Your task to perform on an android device: open app "ZOOM Cloud Meetings" (install if not already installed) Image 0: 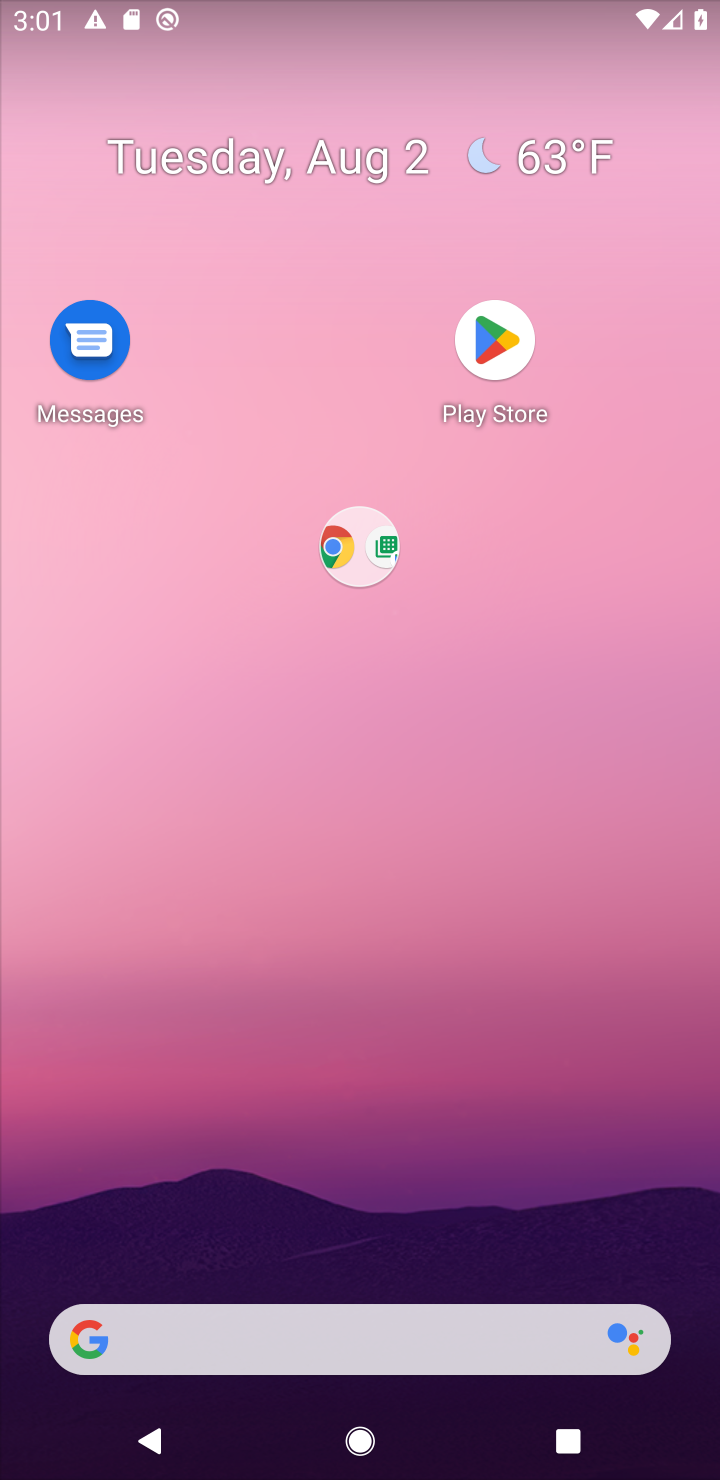
Step 0: press back button
Your task to perform on an android device: open app "ZOOM Cloud Meetings" (install if not already installed) Image 1: 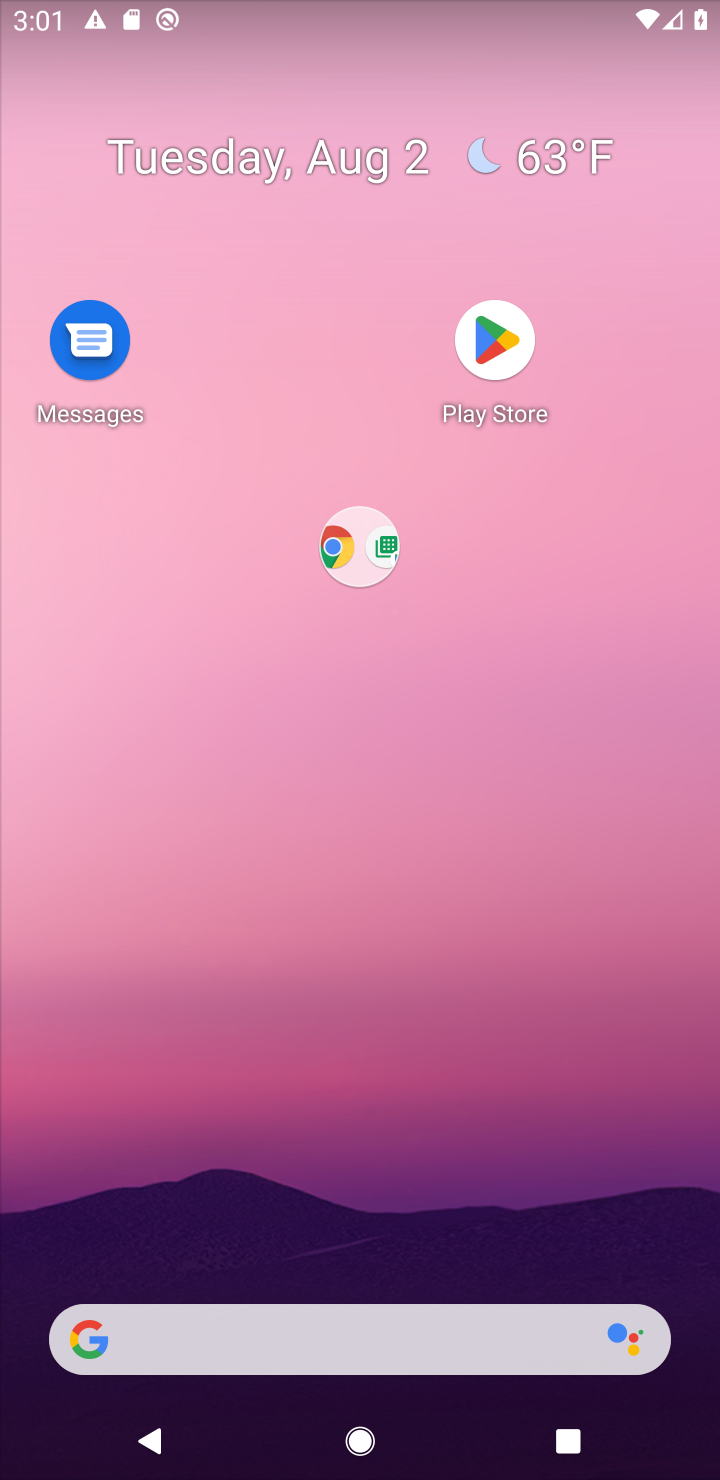
Step 1: click (62, 94)
Your task to perform on an android device: open app "ZOOM Cloud Meetings" (install if not already installed) Image 2: 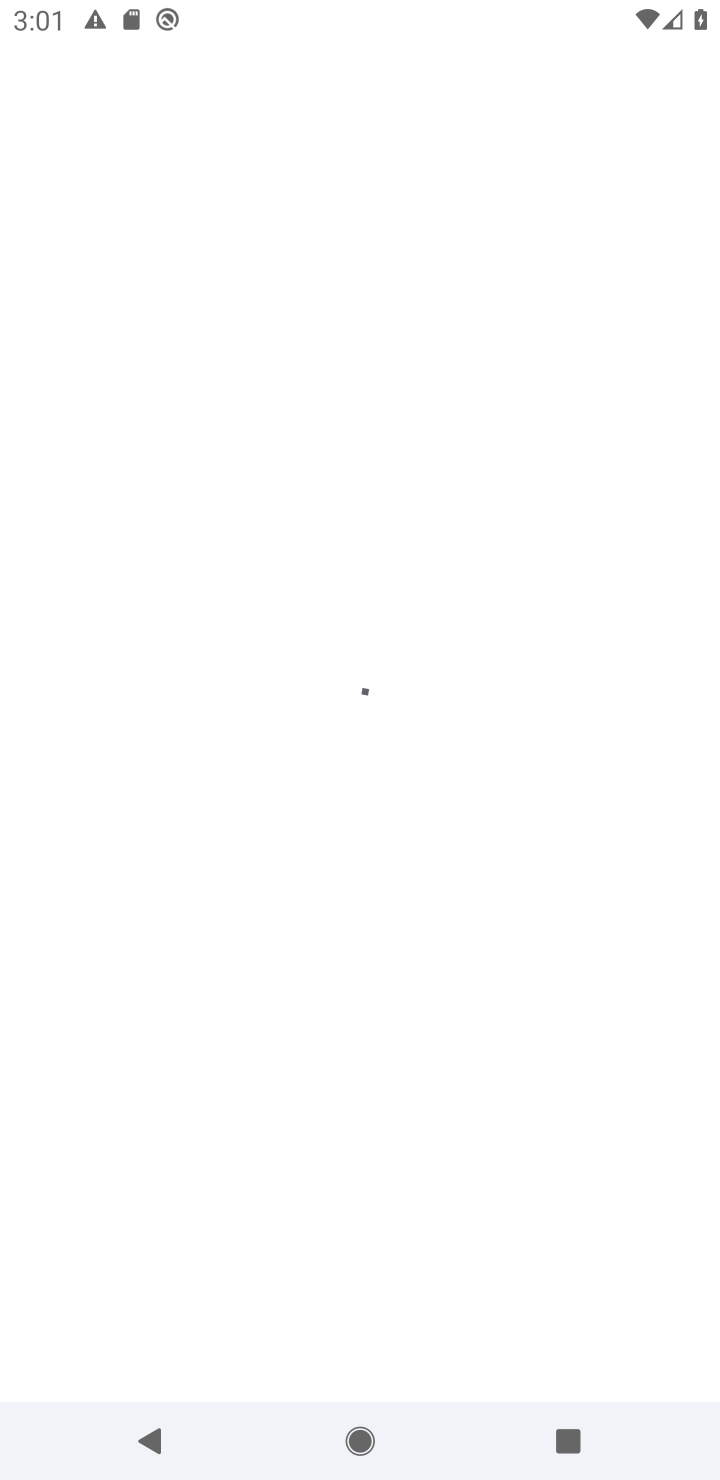
Step 2: click (243, 18)
Your task to perform on an android device: open app "ZOOM Cloud Meetings" (install if not already installed) Image 3: 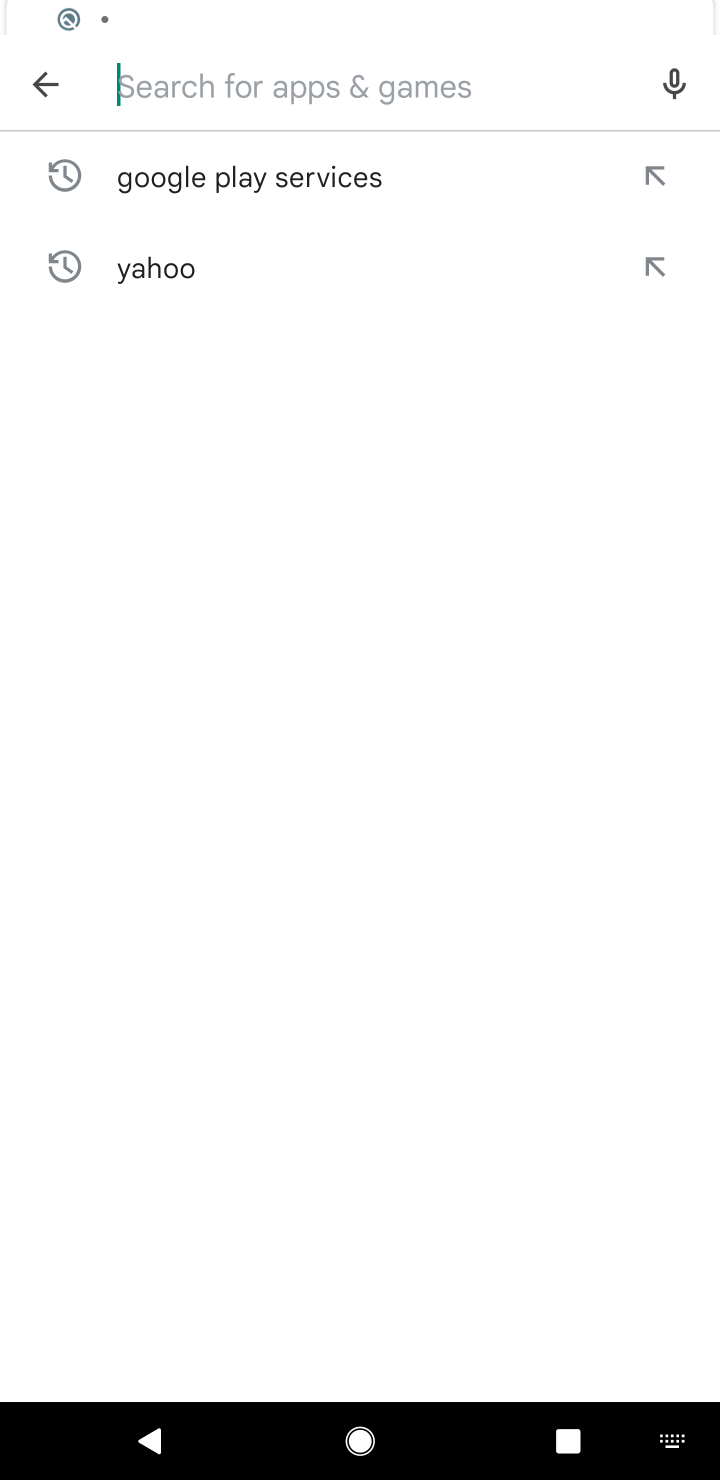
Step 3: click (268, 102)
Your task to perform on an android device: open app "ZOOM Cloud Meetings" (install if not already installed) Image 4: 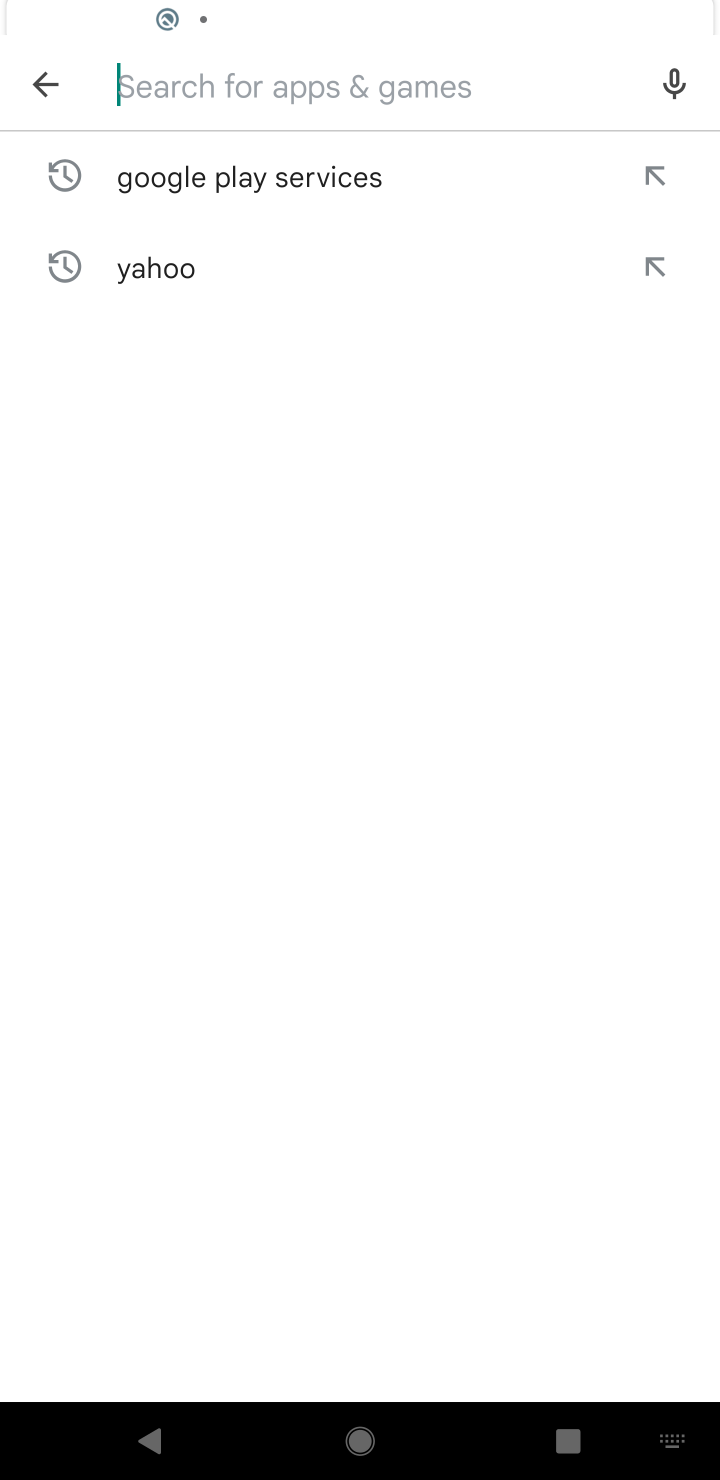
Step 4: click (289, 60)
Your task to perform on an android device: open app "ZOOM Cloud Meetings" (install if not already installed) Image 5: 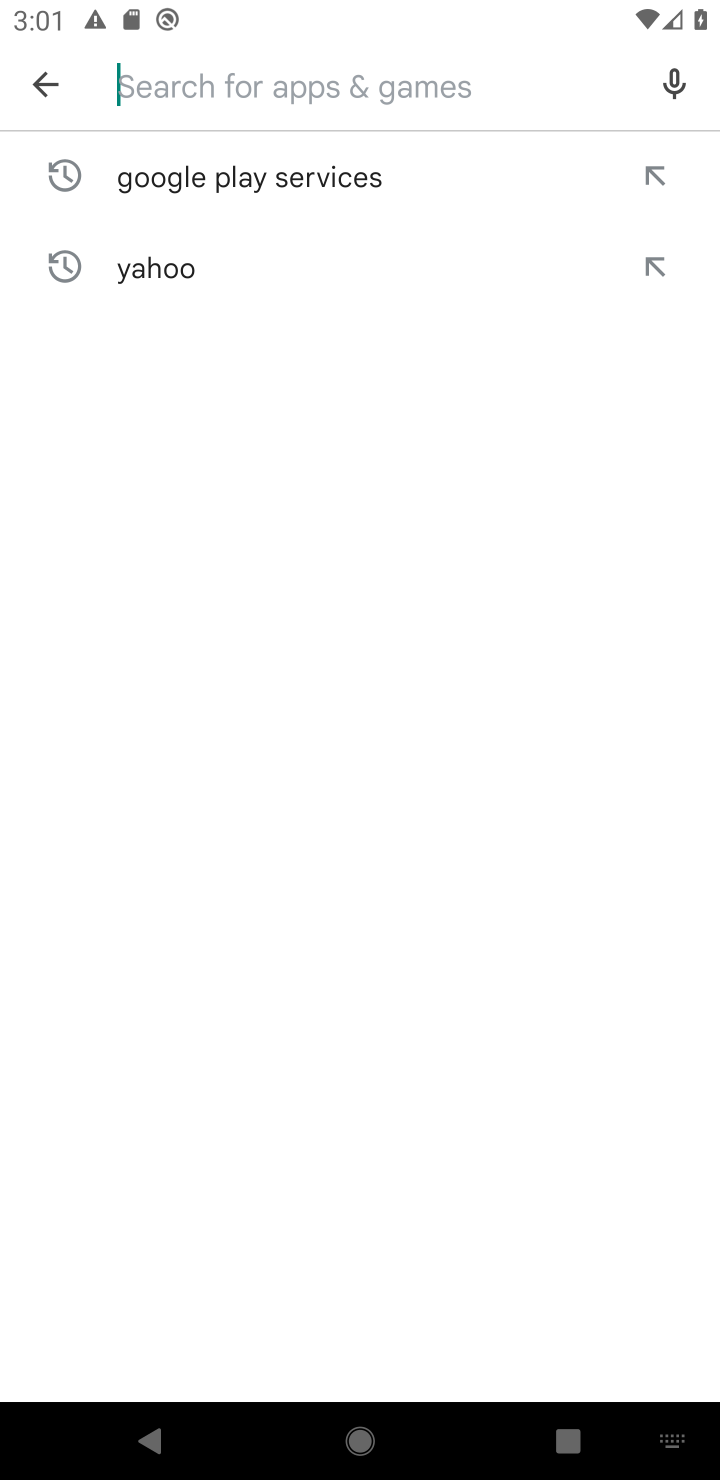
Step 5: type "zoom"
Your task to perform on an android device: open app "ZOOM Cloud Meetings" (install if not already installed) Image 6: 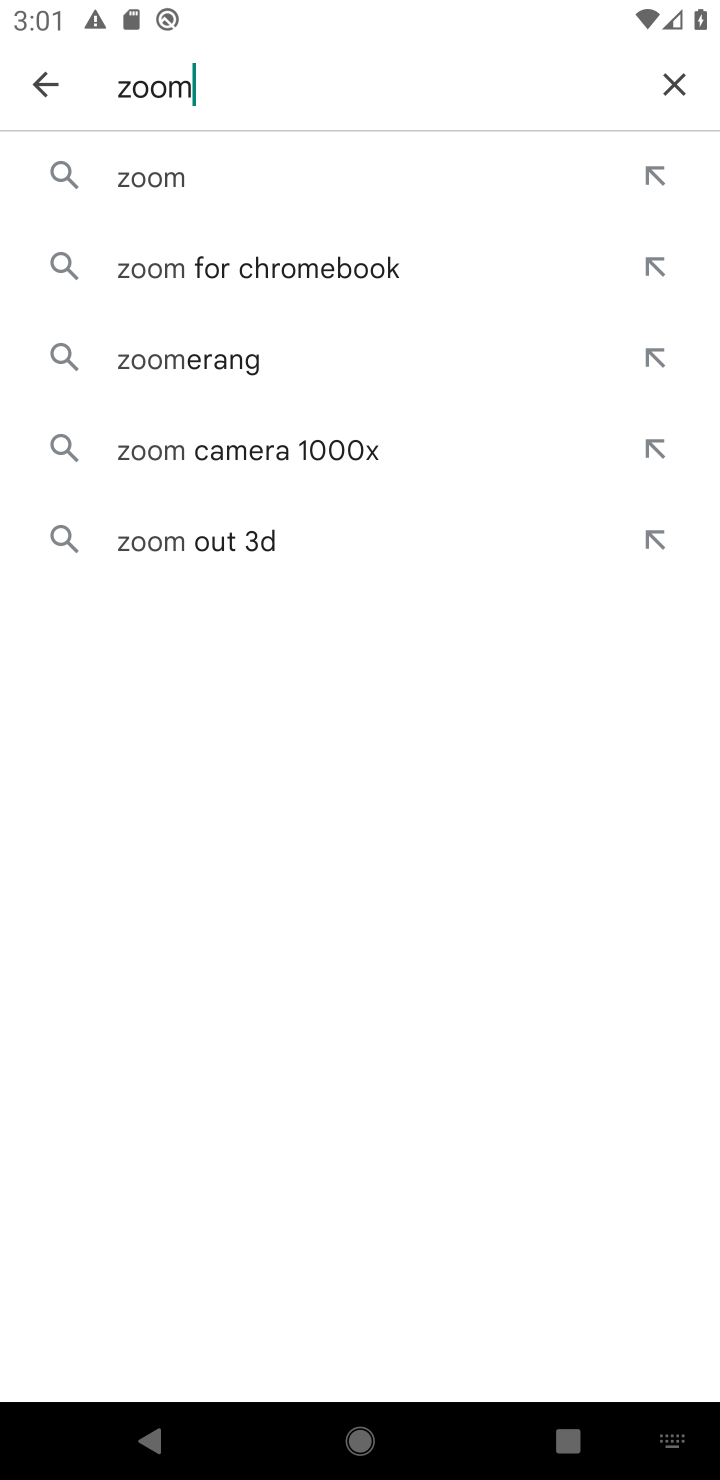
Step 6: click (149, 178)
Your task to perform on an android device: open app "ZOOM Cloud Meetings" (install if not already installed) Image 7: 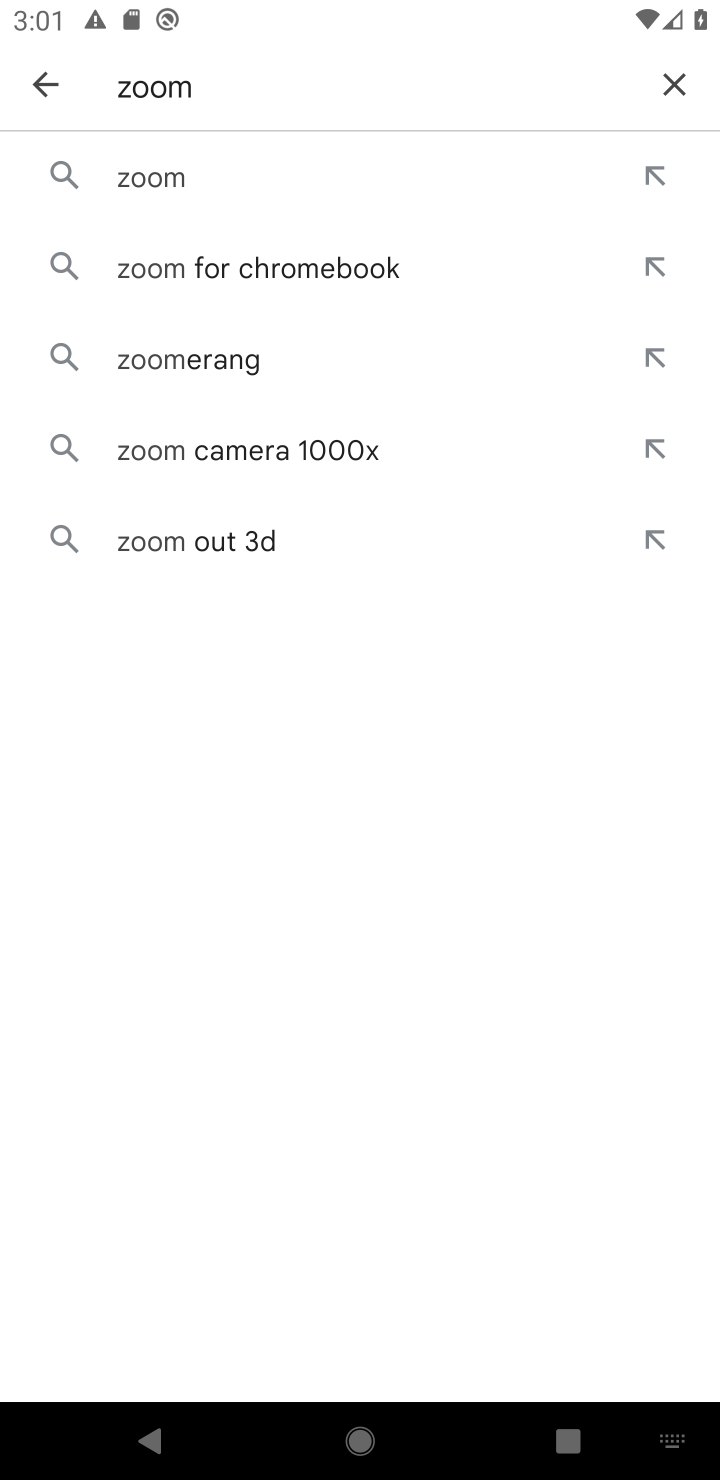
Step 7: click (149, 178)
Your task to perform on an android device: open app "ZOOM Cloud Meetings" (install if not already installed) Image 8: 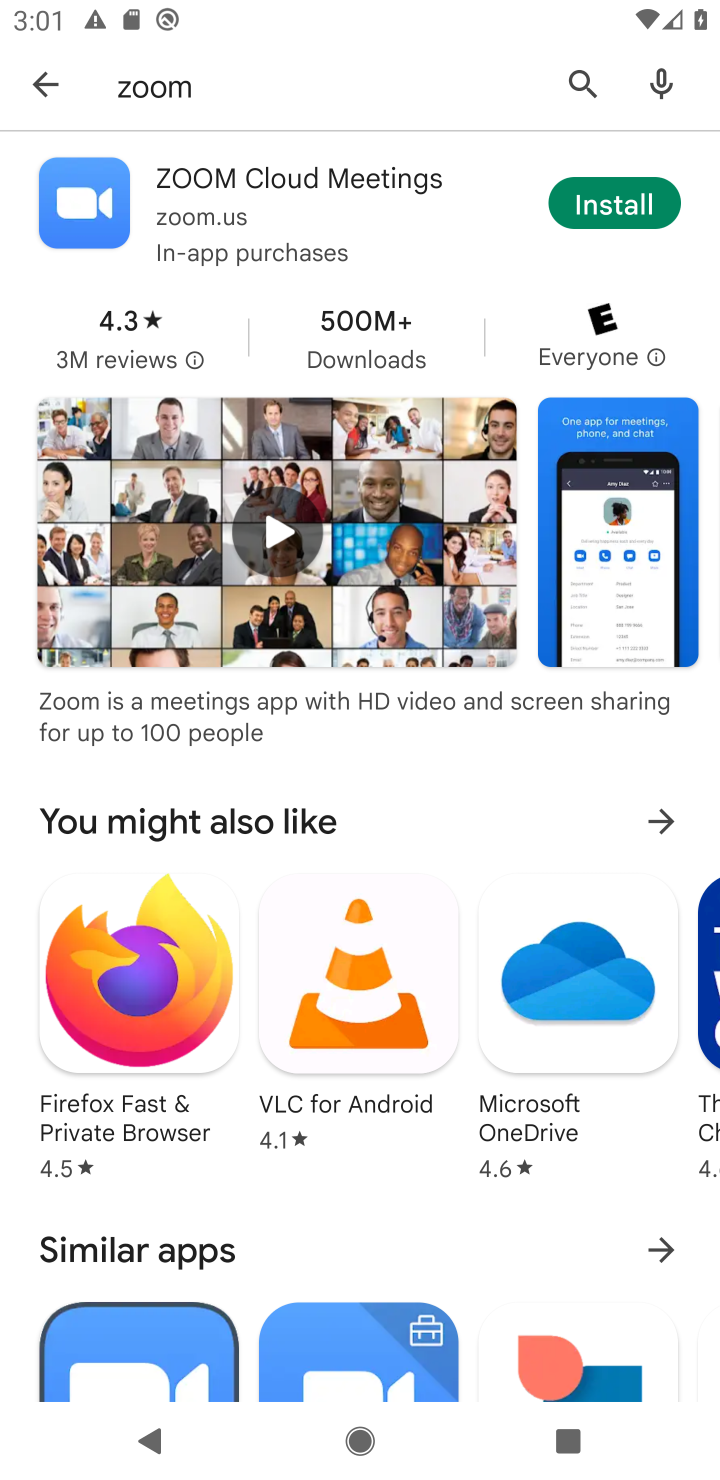
Step 8: click (653, 196)
Your task to perform on an android device: open app "ZOOM Cloud Meetings" (install if not already installed) Image 9: 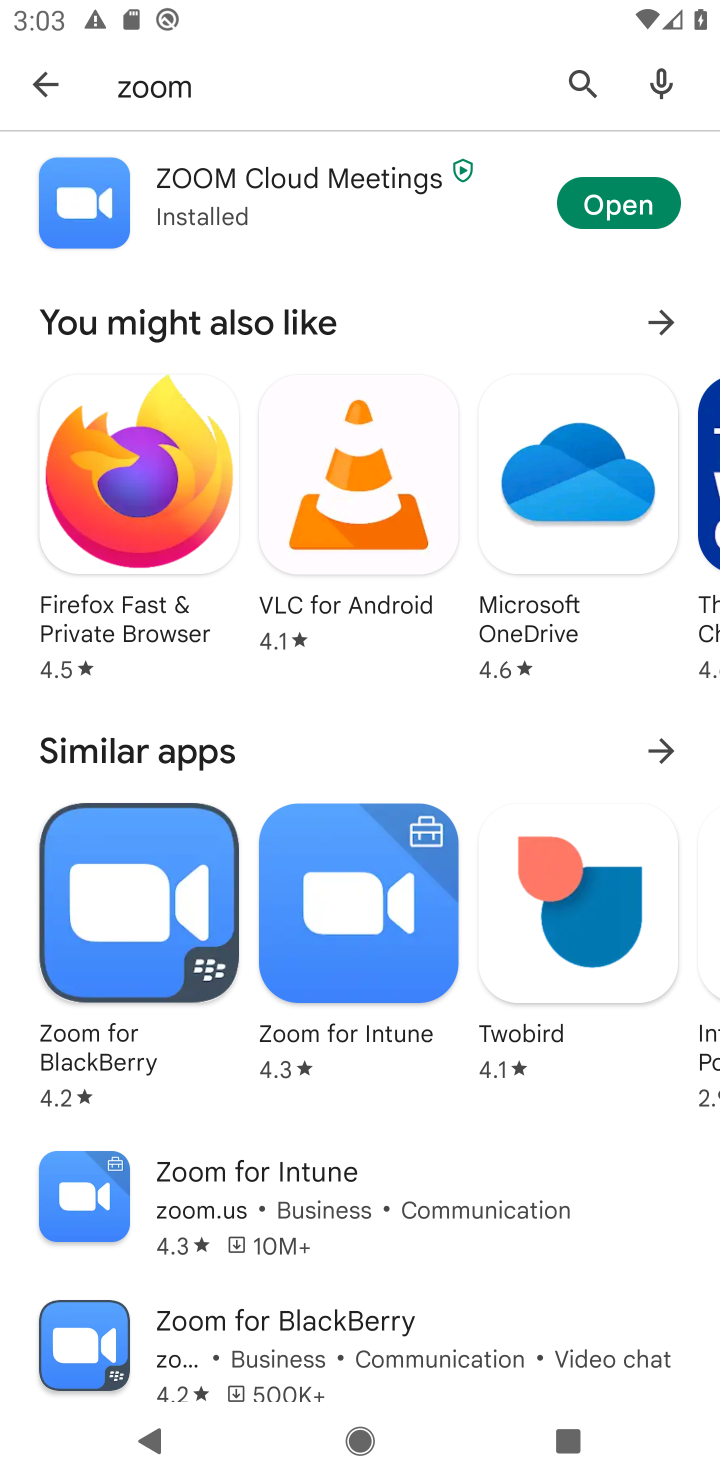
Step 9: click (624, 178)
Your task to perform on an android device: open app "ZOOM Cloud Meetings" (install if not already installed) Image 10: 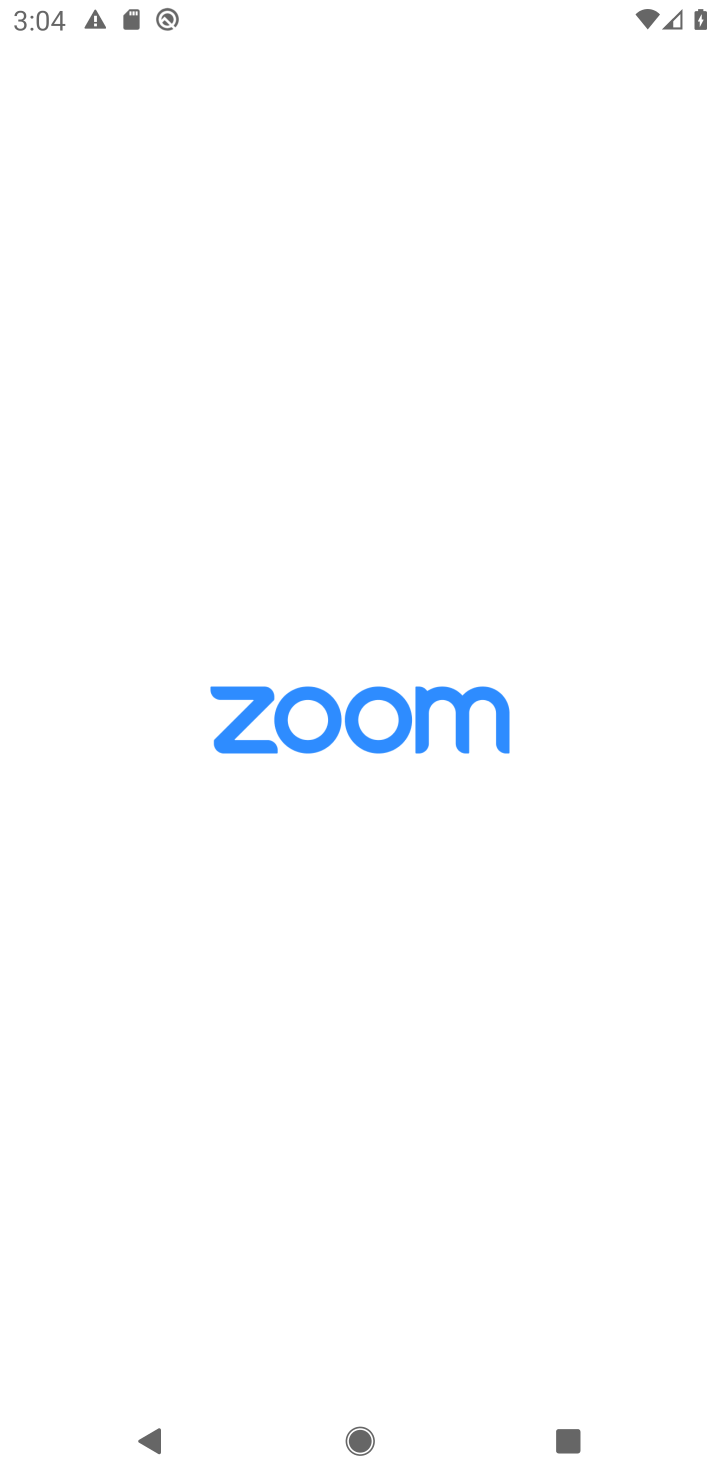
Step 10: task complete